Your task to perform on an android device: turn off javascript in the chrome app Image 0: 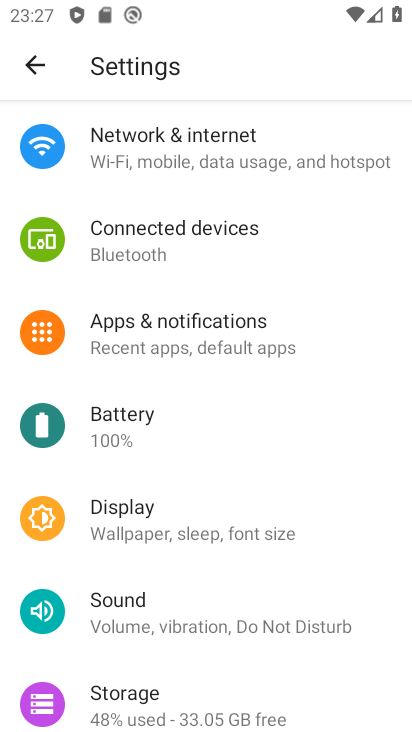
Step 0: press home button
Your task to perform on an android device: turn off javascript in the chrome app Image 1: 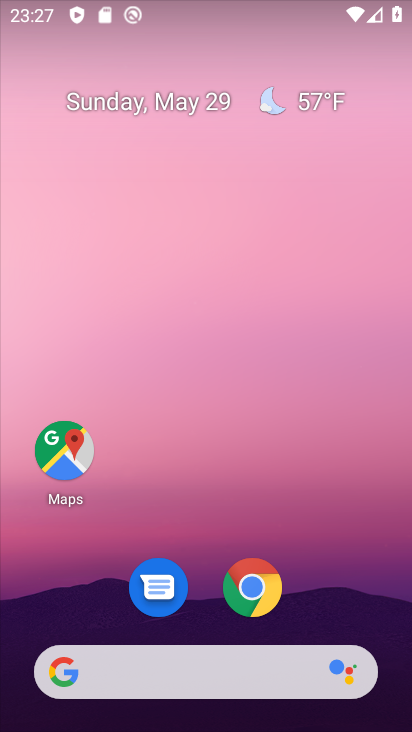
Step 1: drag from (380, 620) to (297, 44)
Your task to perform on an android device: turn off javascript in the chrome app Image 2: 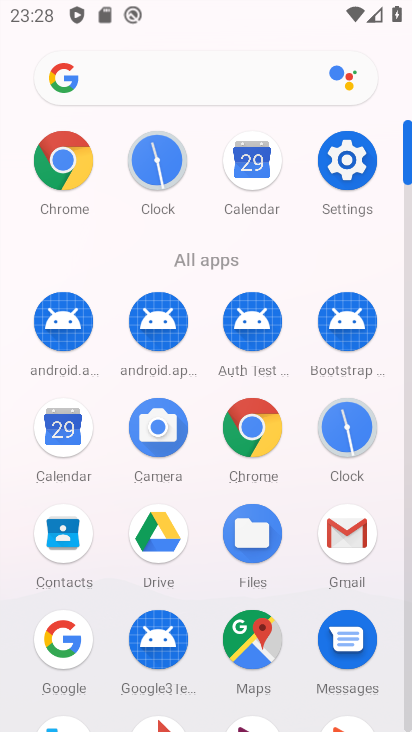
Step 2: click (64, 171)
Your task to perform on an android device: turn off javascript in the chrome app Image 3: 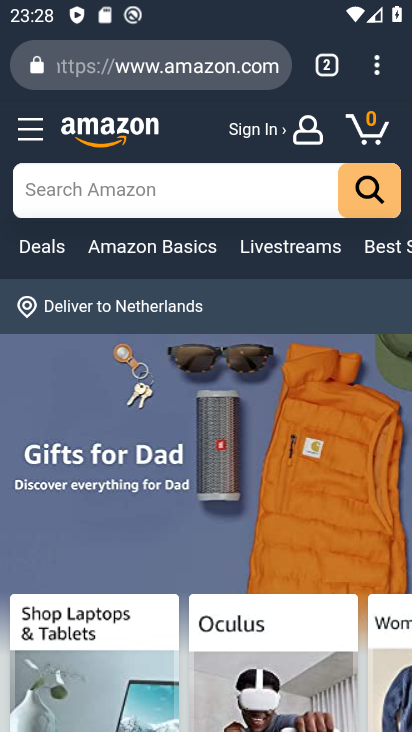
Step 3: click (381, 68)
Your task to perform on an android device: turn off javascript in the chrome app Image 4: 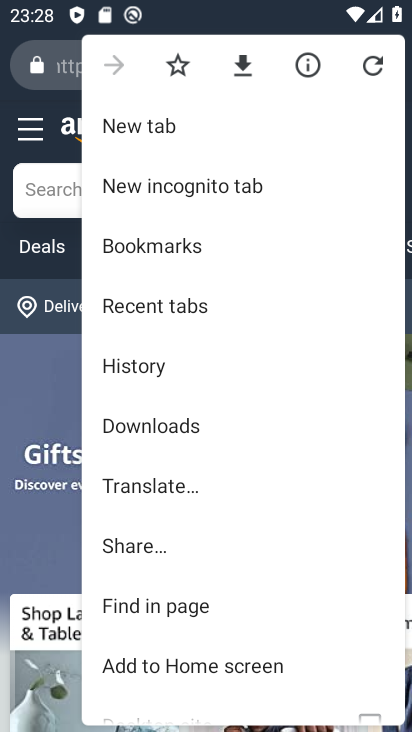
Step 4: drag from (245, 703) to (242, 340)
Your task to perform on an android device: turn off javascript in the chrome app Image 5: 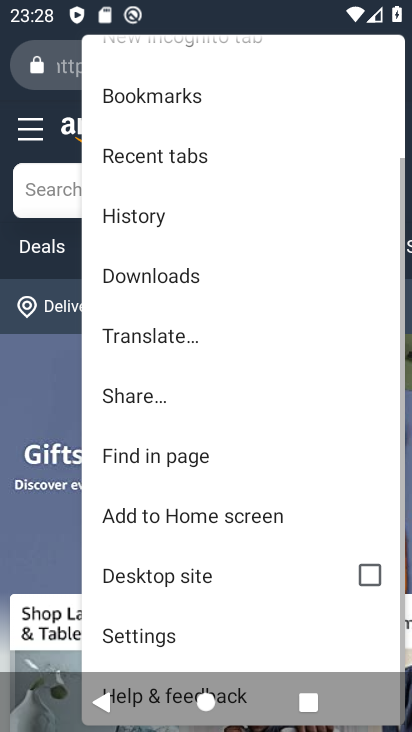
Step 5: click (236, 646)
Your task to perform on an android device: turn off javascript in the chrome app Image 6: 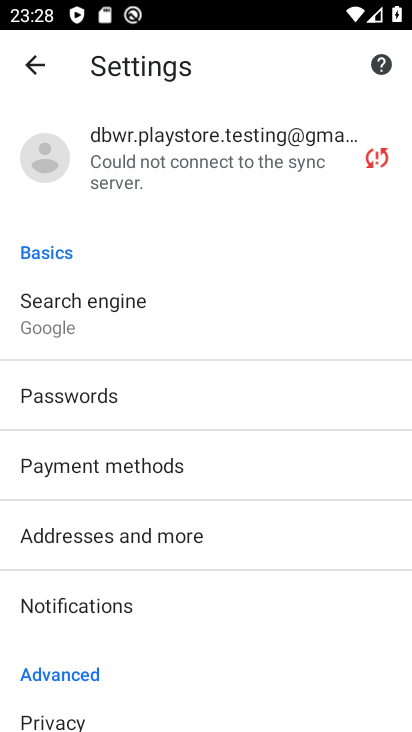
Step 6: drag from (236, 646) to (214, 272)
Your task to perform on an android device: turn off javascript in the chrome app Image 7: 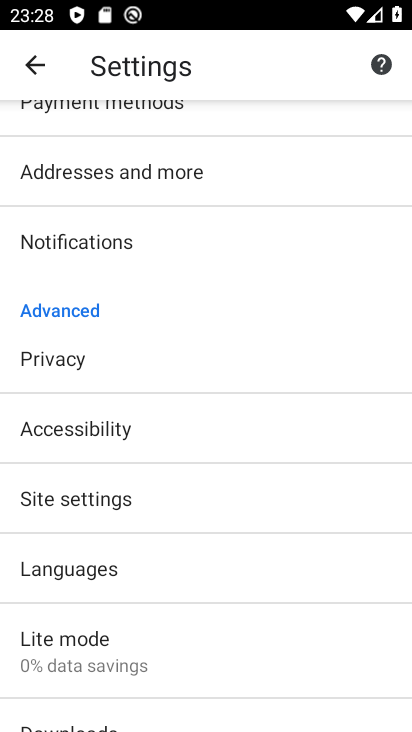
Step 7: click (204, 513)
Your task to perform on an android device: turn off javascript in the chrome app Image 8: 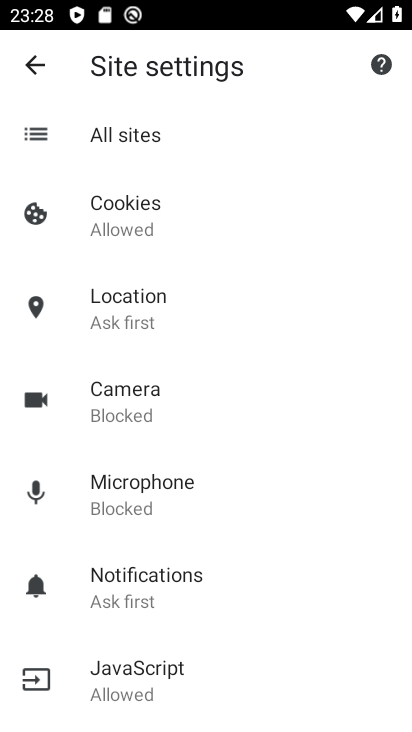
Step 8: click (213, 661)
Your task to perform on an android device: turn off javascript in the chrome app Image 9: 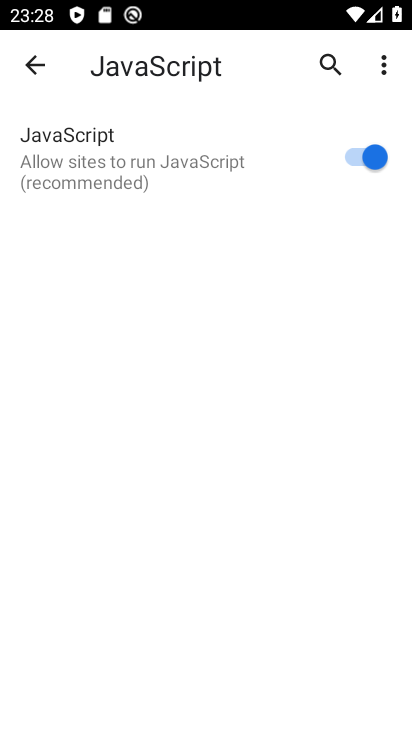
Step 9: click (362, 158)
Your task to perform on an android device: turn off javascript in the chrome app Image 10: 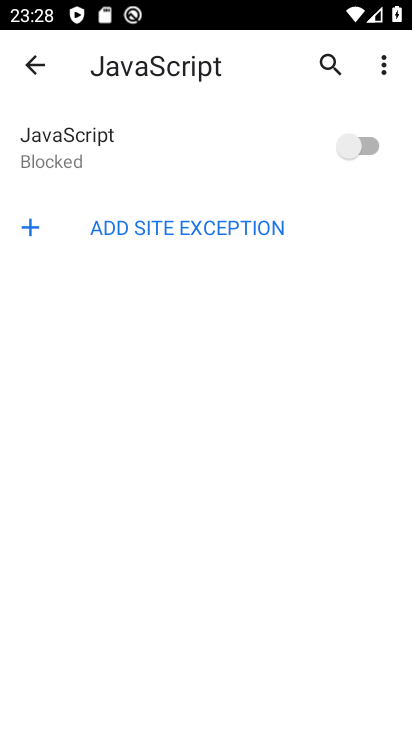
Step 10: task complete